Your task to perform on an android device: turn off priority inbox in the gmail app Image 0: 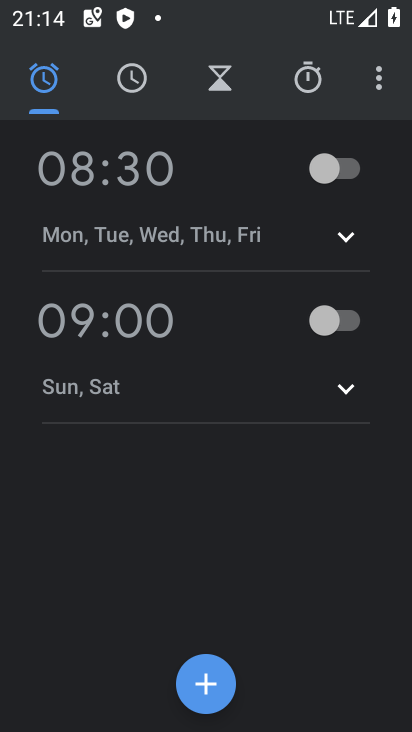
Step 0: press home button
Your task to perform on an android device: turn off priority inbox in the gmail app Image 1: 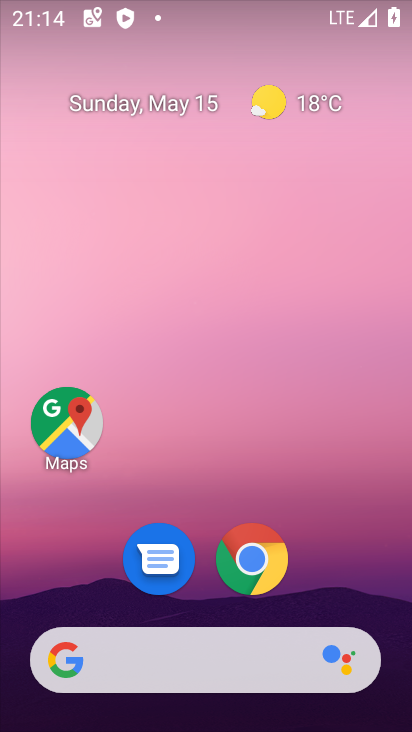
Step 1: drag from (205, 479) to (144, 192)
Your task to perform on an android device: turn off priority inbox in the gmail app Image 2: 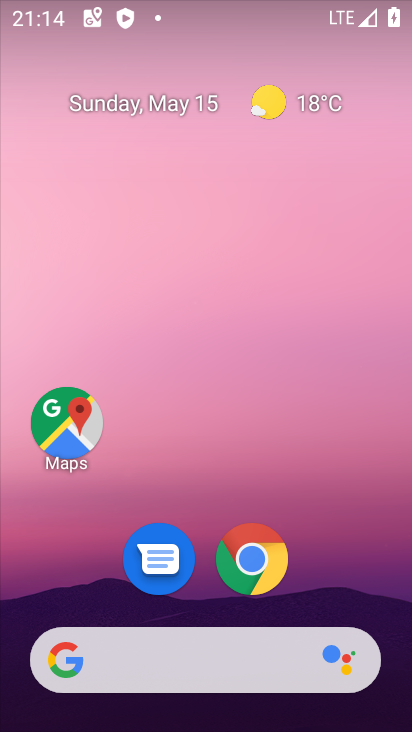
Step 2: drag from (176, 467) to (146, 119)
Your task to perform on an android device: turn off priority inbox in the gmail app Image 3: 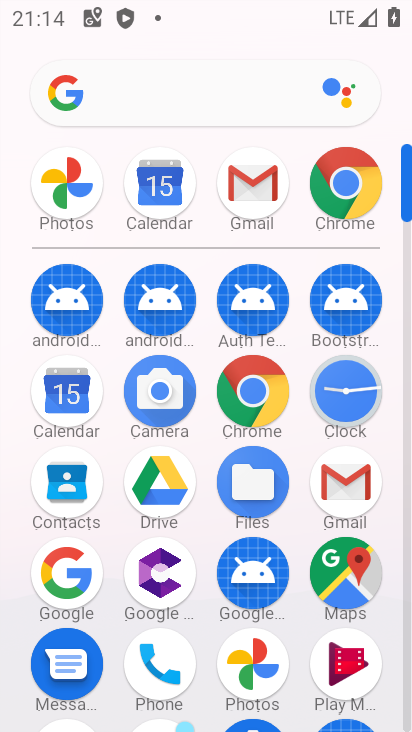
Step 3: click (247, 182)
Your task to perform on an android device: turn off priority inbox in the gmail app Image 4: 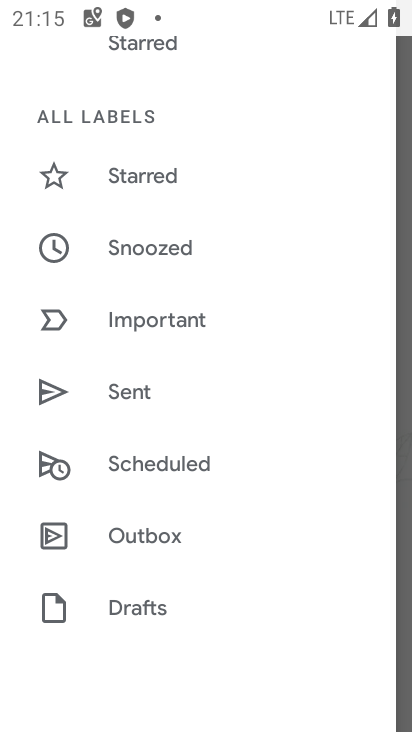
Step 4: drag from (218, 554) to (167, 116)
Your task to perform on an android device: turn off priority inbox in the gmail app Image 5: 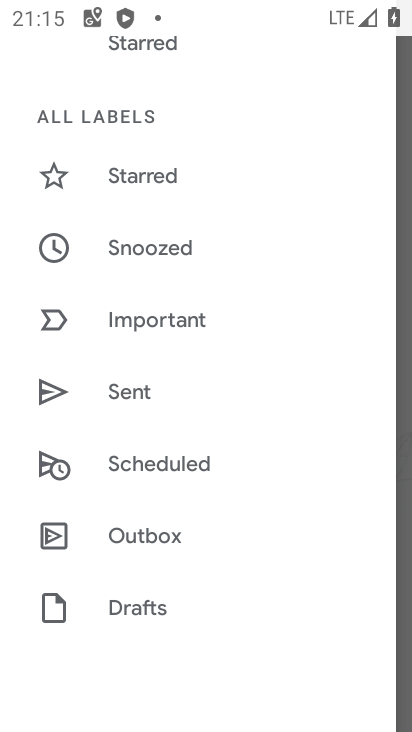
Step 5: drag from (183, 499) to (191, 225)
Your task to perform on an android device: turn off priority inbox in the gmail app Image 6: 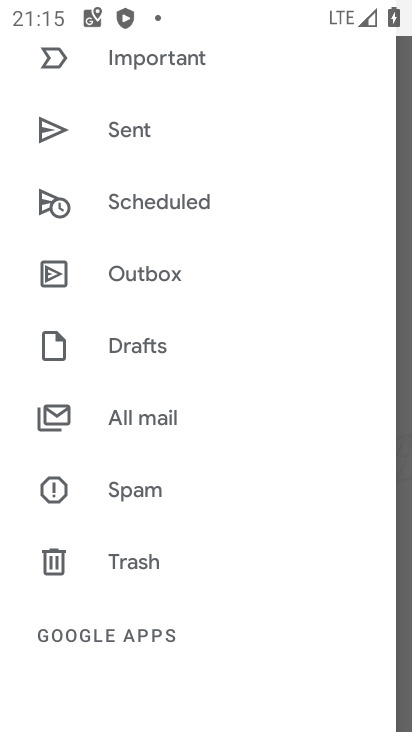
Step 6: drag from (200, 526) to (216, 248)
Your task to perform on an android device: turn off priority inbox in the gmail app Image 7: 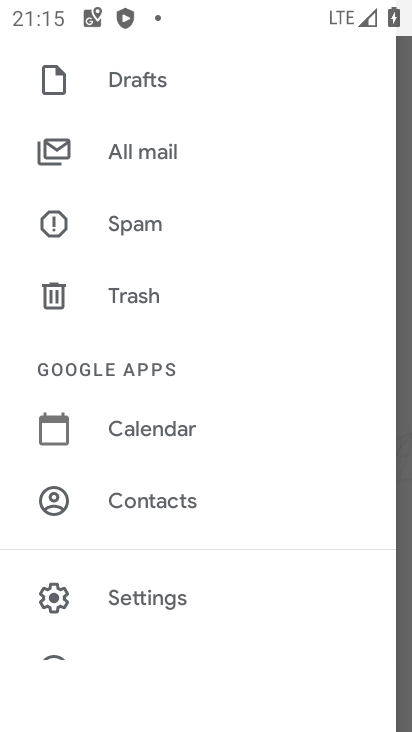
Step 7: click (148, 597)
Your task to perform on an android device: turn off priority inbox in the gmail app Image 8: 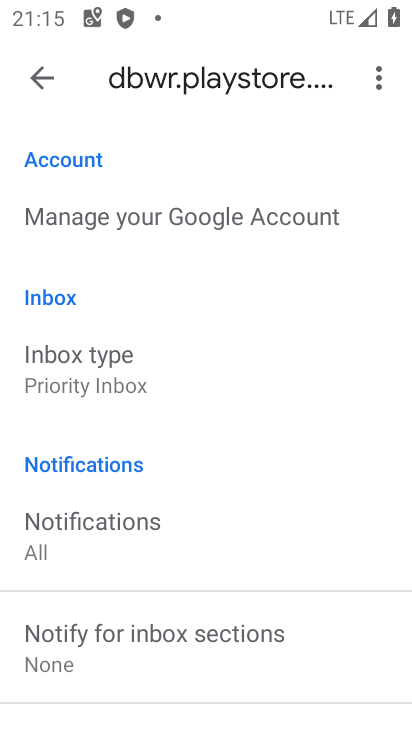
Step 8: click (94, 359)
Your task to perform on an android device: turn off priority inbox in the gmail app Image 9: 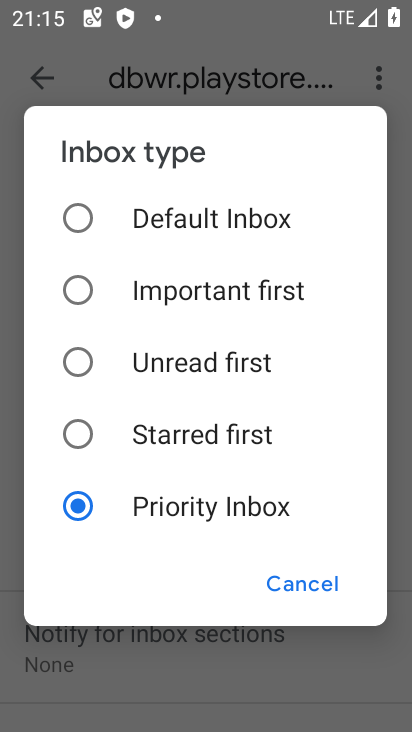
Step 9: click (79, 363)
Your task to perform on an android device: turn off priority inbox in the gmail app Image 10: 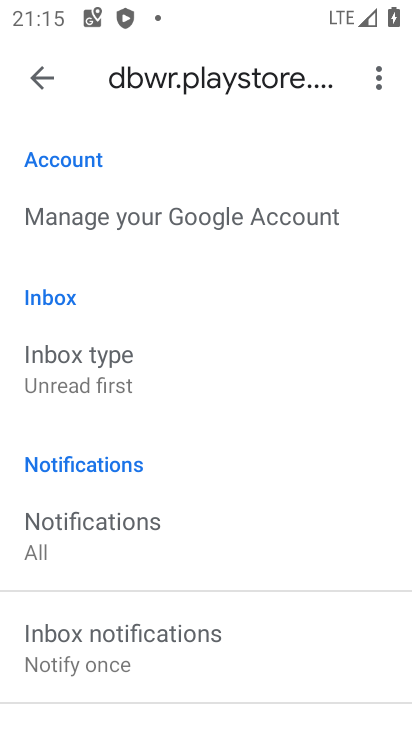
Step 10: task complete